Your task to perform on an android device: Open Amazon Image 0: 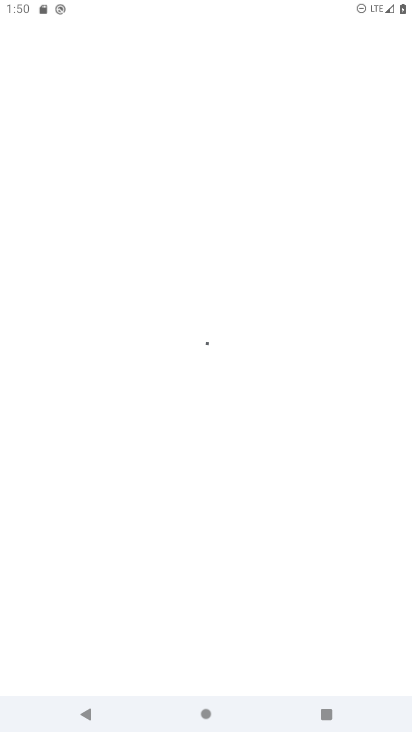
Step 0: press home button
Your task to perform on an android device: Open Amazon Image 1: 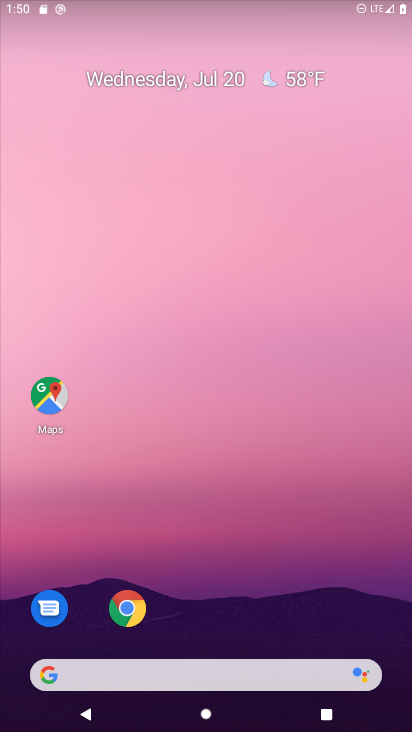
Step 1: drag from (232, 718) to (216, 474)
Your task to perform on an android device: Open Amazon Image 2: 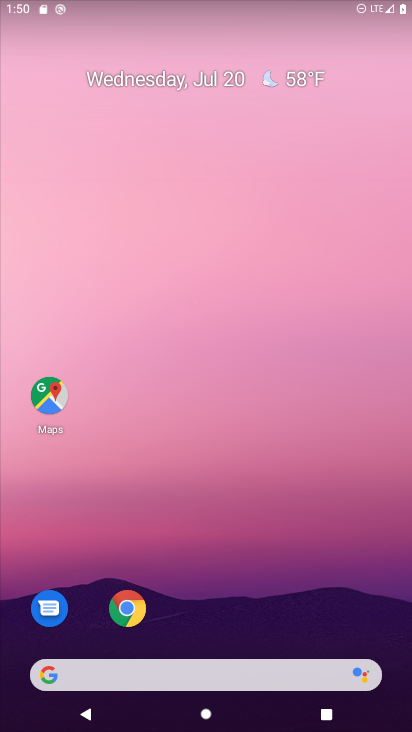
Step 2: click (128, 605)
Your task to perform on an android device: Open Amazon Image 3: 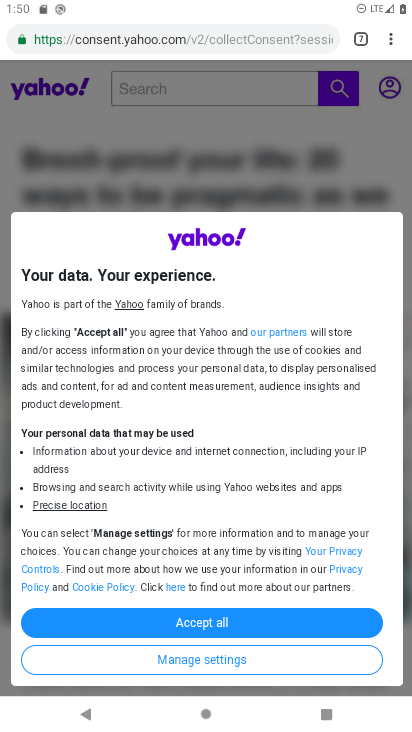
Step 3: click (389, 41)
Your task to perform on an android device: Open Amazon Image 4: 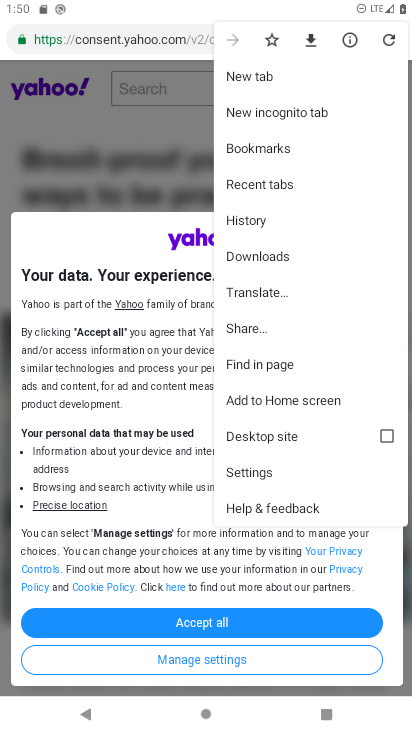
Step 4: click (255, 73)
Your task to perform on an android device: Open Amazon Image 5: 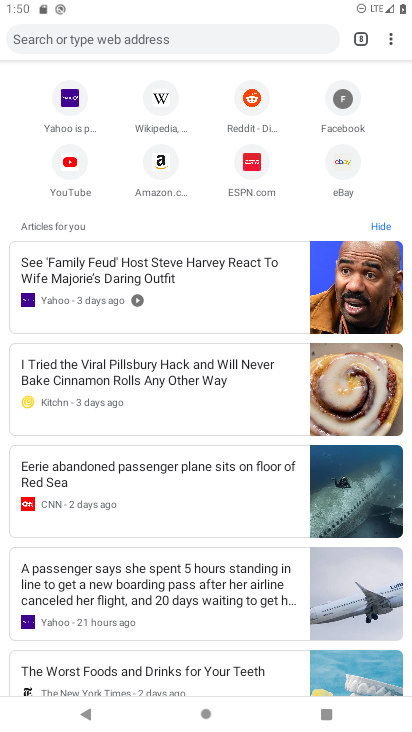
Step 5: click (165, 164)
Your task to perform on an android device: Open Amazon Image 6: 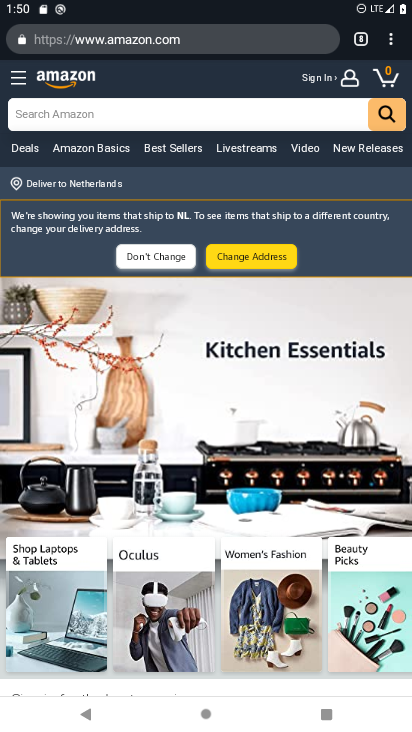
Step 6: task complete